Your task to perform on an android device: Open Google Chrome and click the shortcut for Amazon.com Image 0: 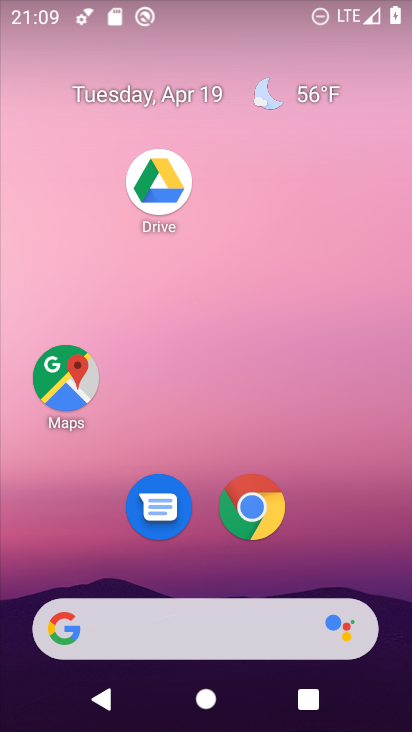
Step 0: click (251, 505)
Your task to perform on an android device: Open Google Chrome and click the shortcut for Amazon.com Image 1: 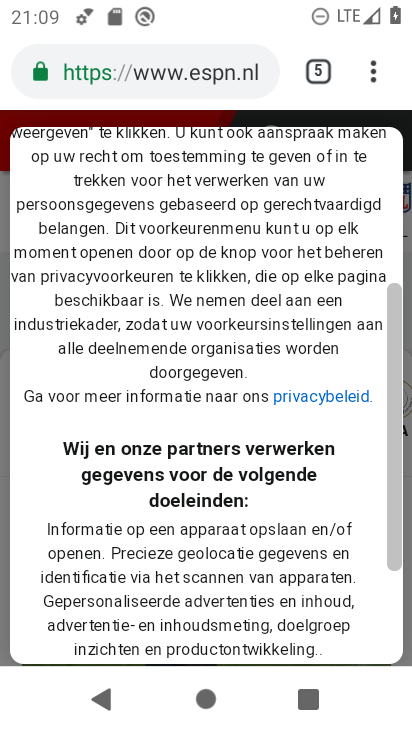
Step 1: drag from (369, 72) to (213, 229)
Your task to perform on an android device: Open Google Chrome and click the shortcut for Amazon.com Image 2: 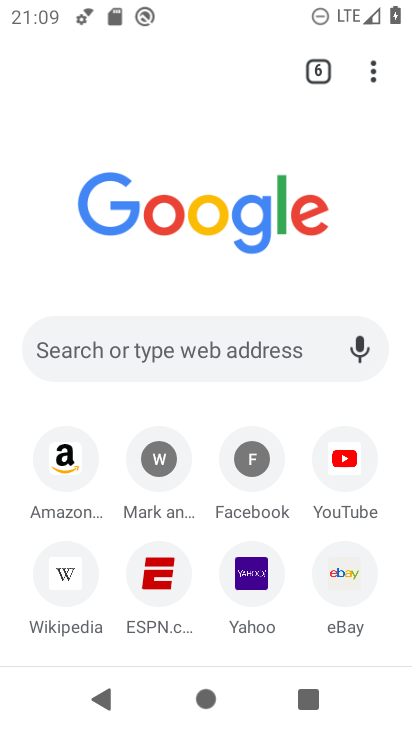
Step 2: click (77, 455)
Your task to perform on an android device: Open Google Chrome and click the shortcut for Amazon.com Image 3: 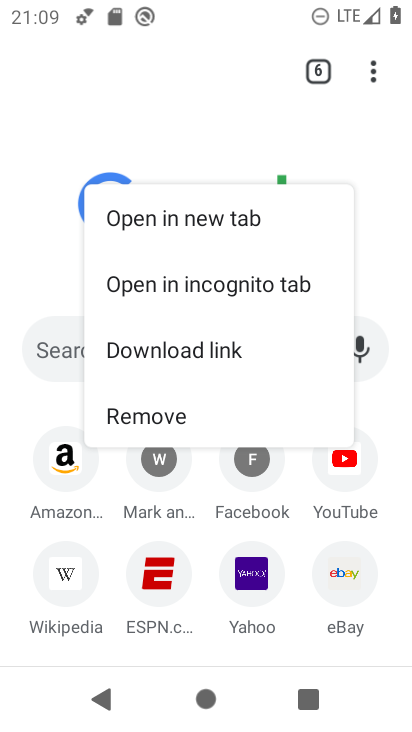
Step 3: click (60, 451)
Your task to perform on an android device: Open Google Chrome and click the shortcut for Amazon.com Image 4: 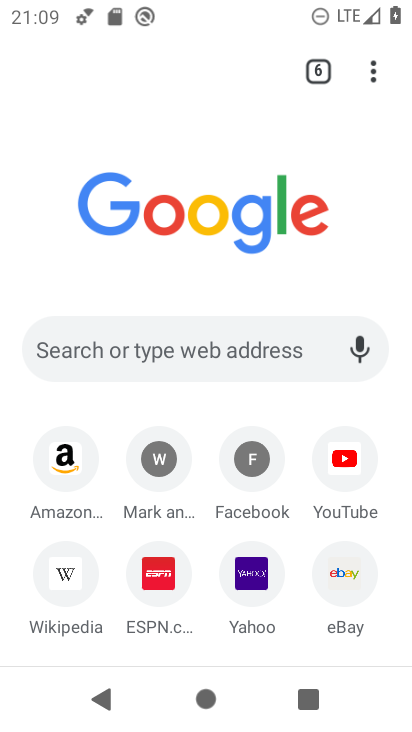
Step 4: click (60, 451)
Your task to perform on an android device: Open Google Chrome and click the shortcut for Amazon.com Image 5: 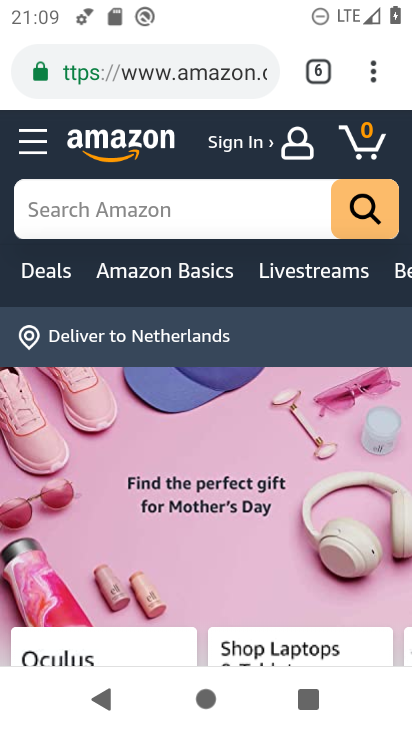
Step 5: task complete